Your task to perform on an android device: What is the capital of Norway? Image 0: 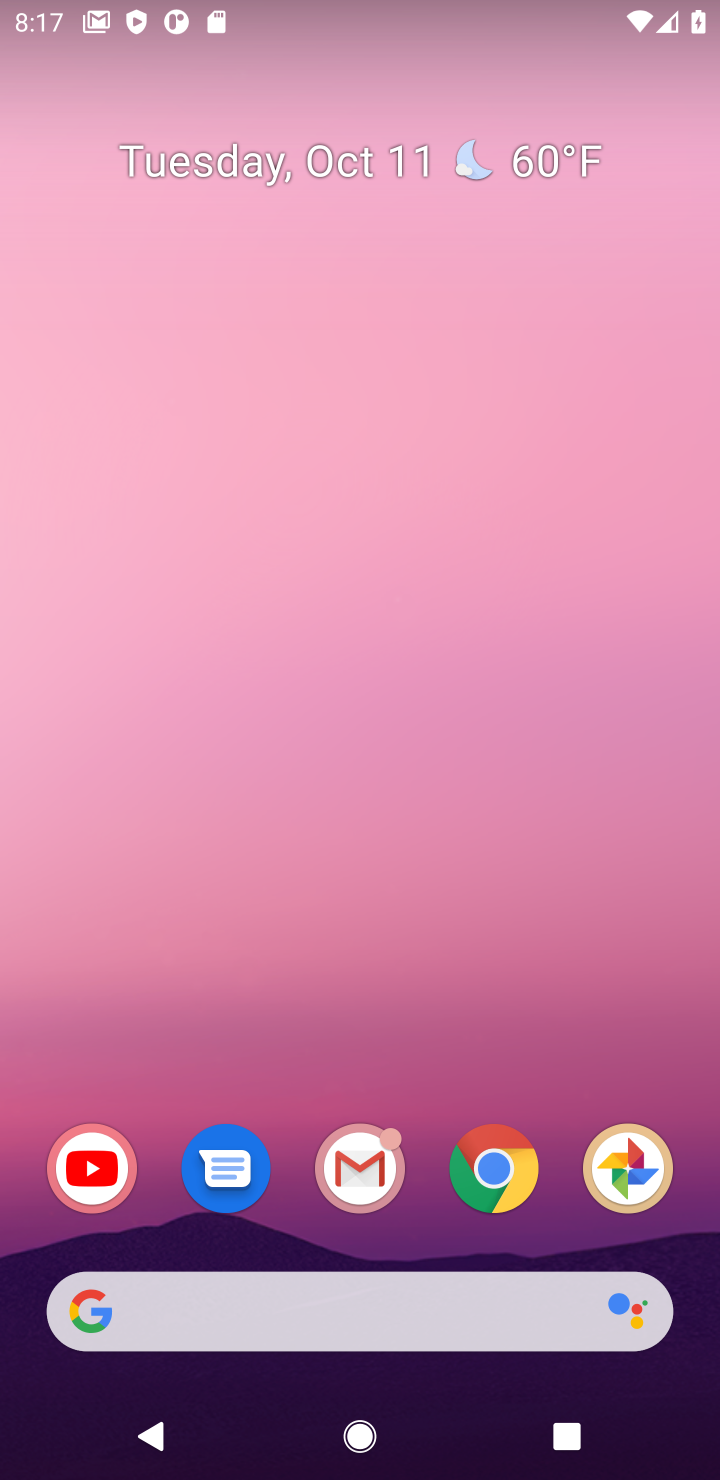
Step 0: click (524, 1167)
Your task to perform on an android device: What is the capital of Norway? Image 1: 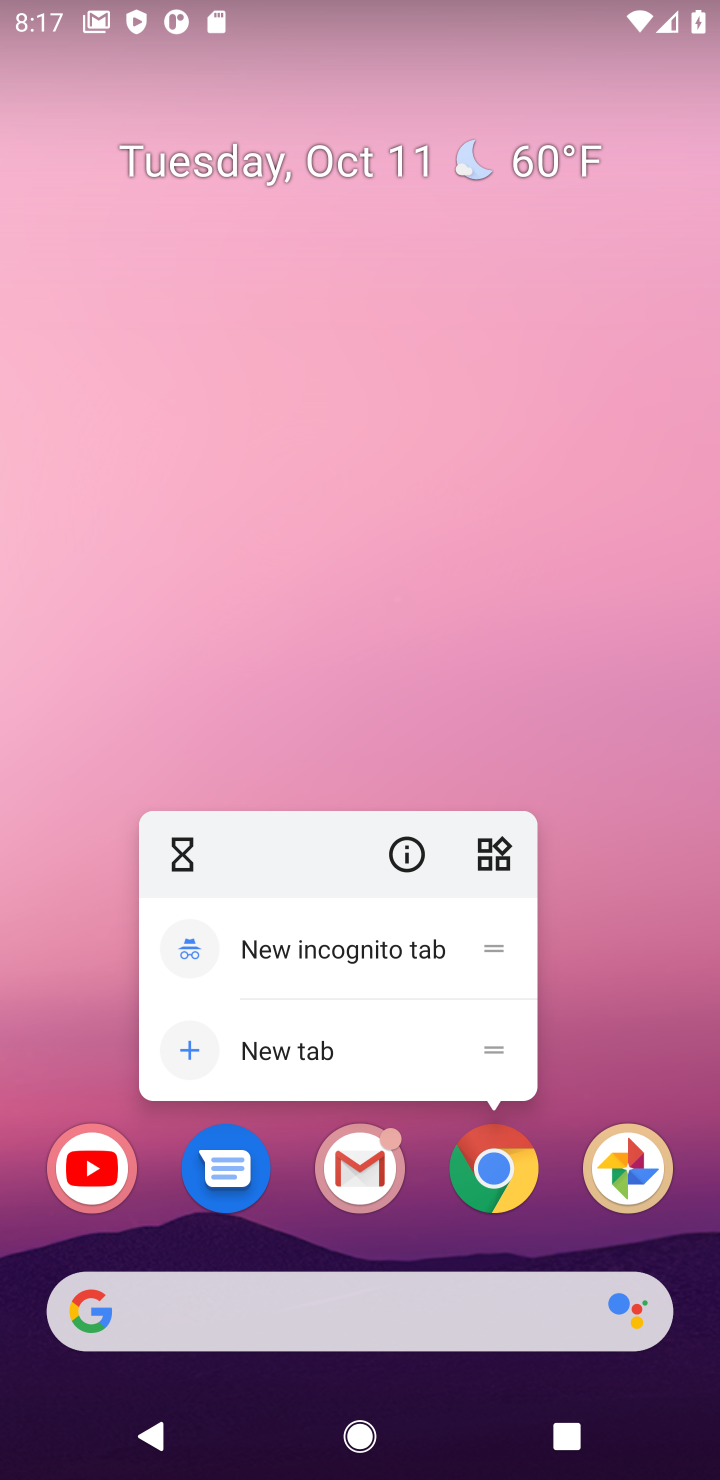
Step 1: click (495, 1168)
Your task to perform on an android device: What is the capital of Norway? Image 2: 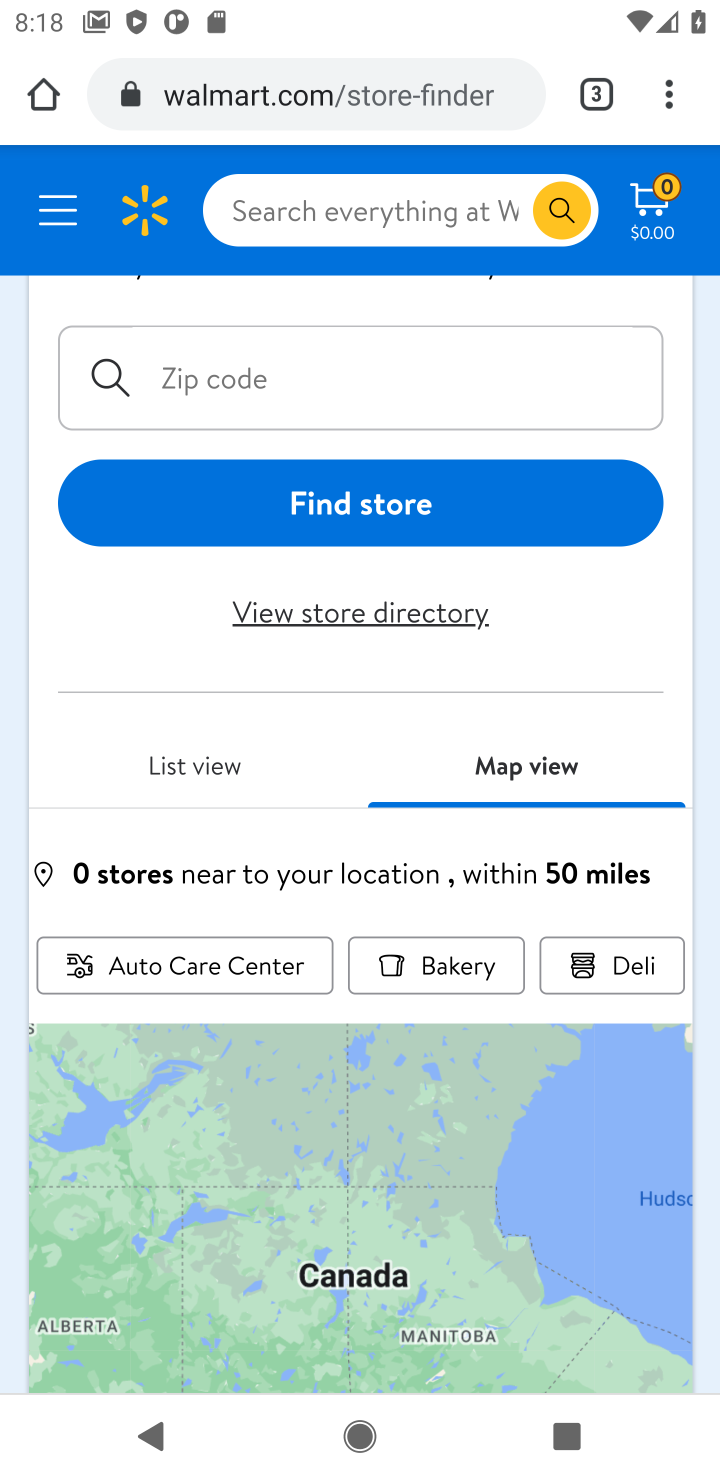
Step 2: click (218, 88)
Your task to perform on an android device: What is the capital of Norway? Image 3: 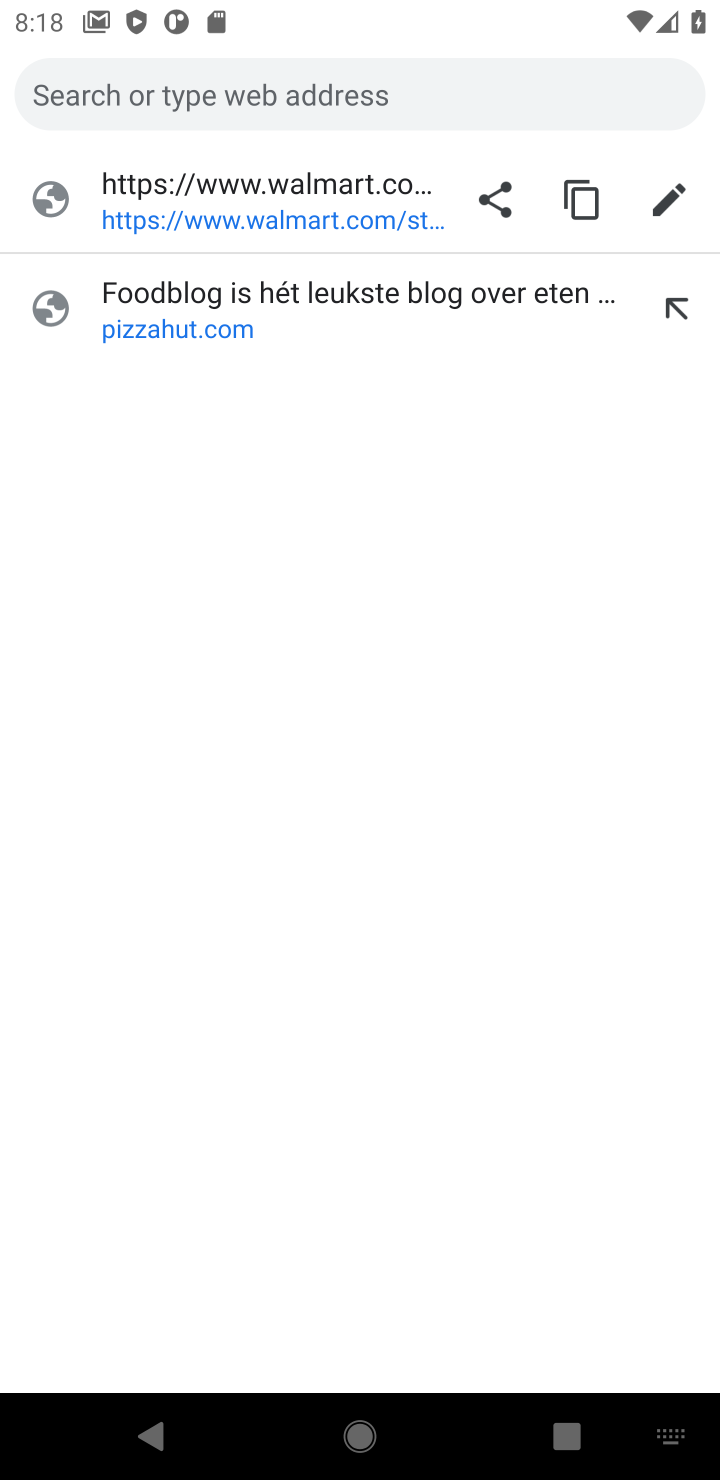
Step 3: type "capital of norway"
Your task to perform on an android device: What is the capital of Norway? Image 4: 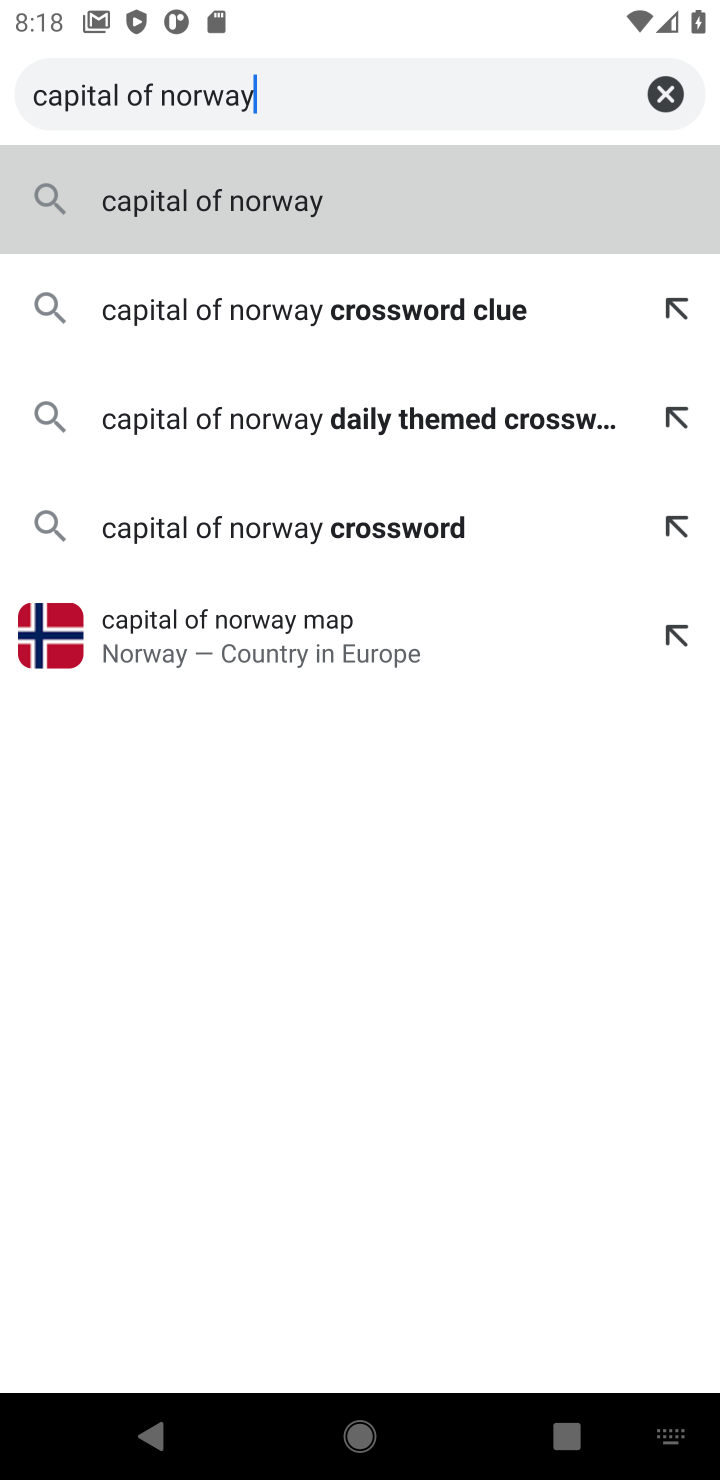
Step 4: click (238, 183)
Your task to perform on an android device: What is the capital of Norway? Image 5: 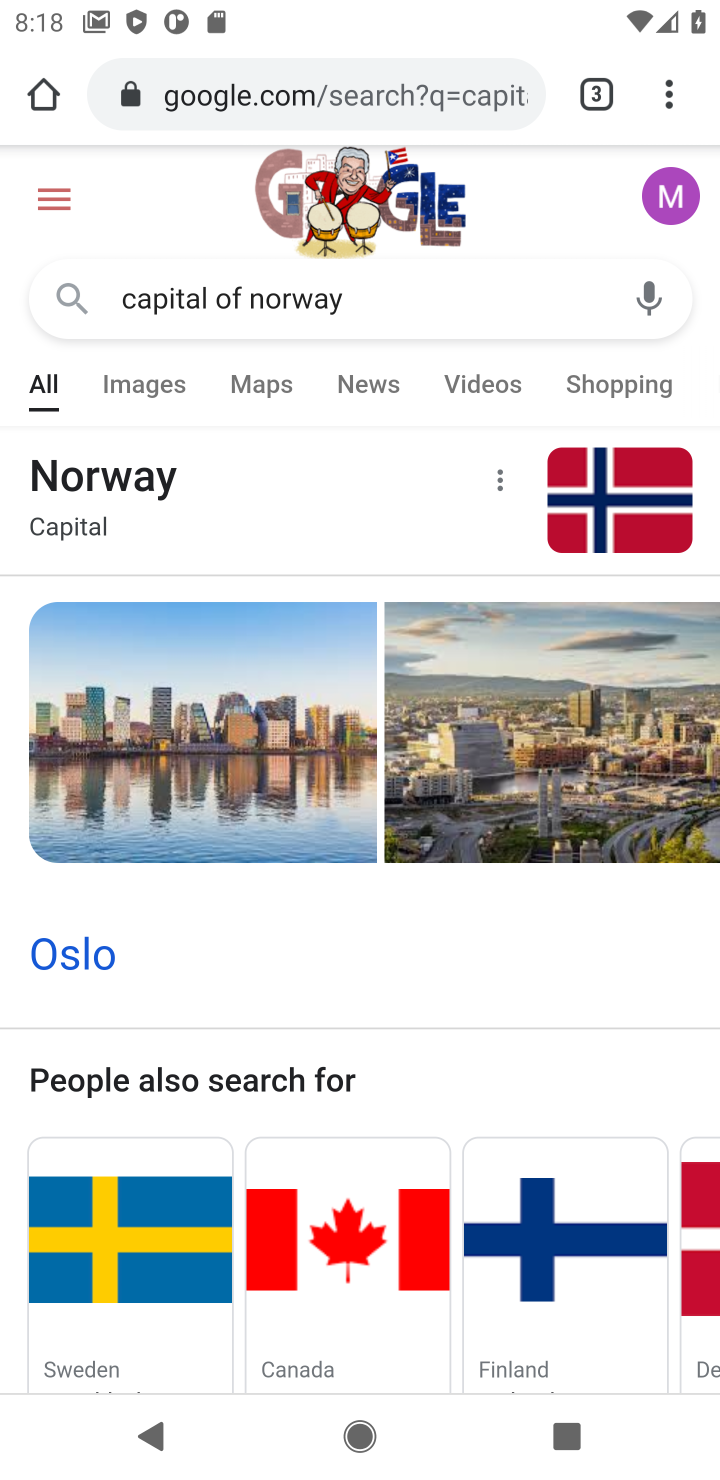
Step 5: task complete